Your task to perform on an android device: Search for Mexican restaurants on Maps Image 0: 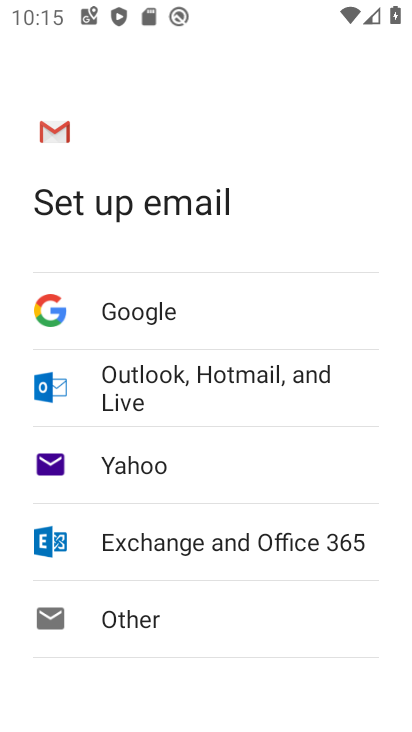
Step 0: press home button
Your task to perform on an android device: Search for Mexican restaurants on Maps Image 1: 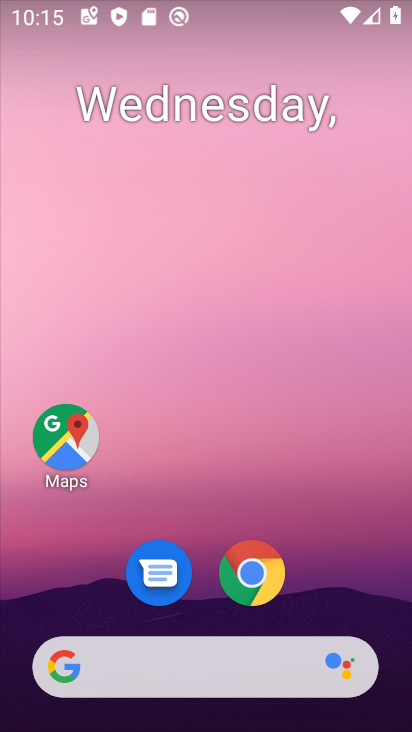
Step 1: drag from (372, 578) to (363, 194)
Your task to perform on an android device: Search for Mexican restaurants on Maps Image 2: 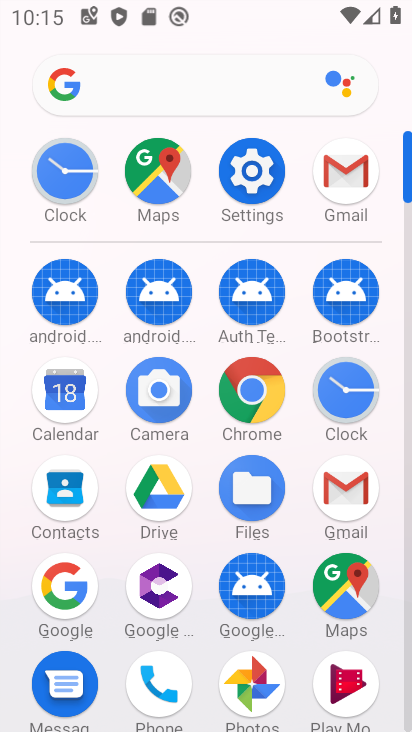
Step 2: click (363, 598)
Your task to perform on an android device: Search for Mexican restaurants on Maps Image 3: 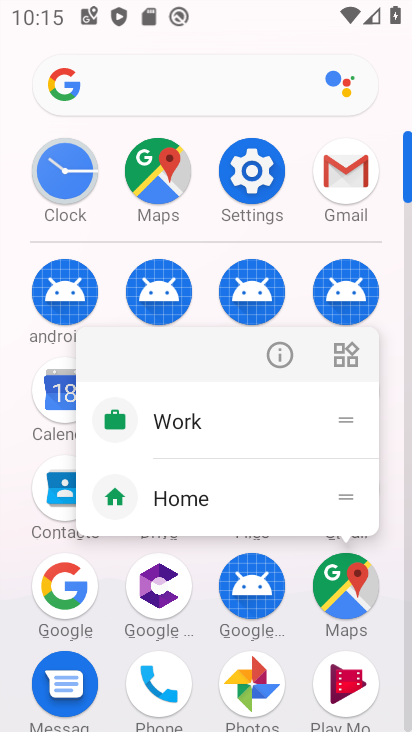
Step 3: click (363, 598)
Your task to perform on an android device: Search for Mexican restaurants on Maps Image 4: 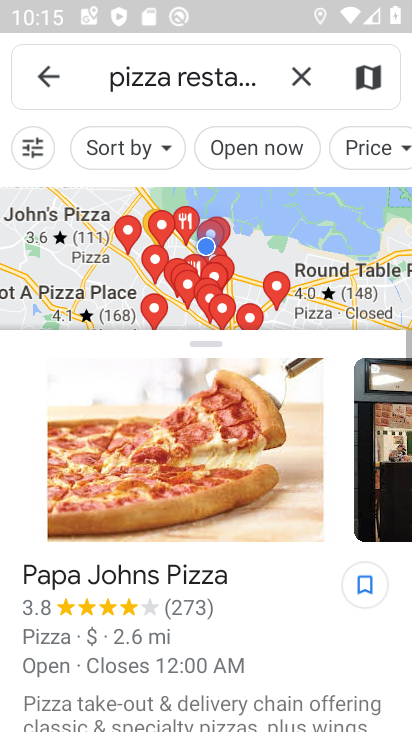
Step 4: click (300, 86)
Your task to perform on an android device: Search for Mexican restaurants on Maps Image 5: 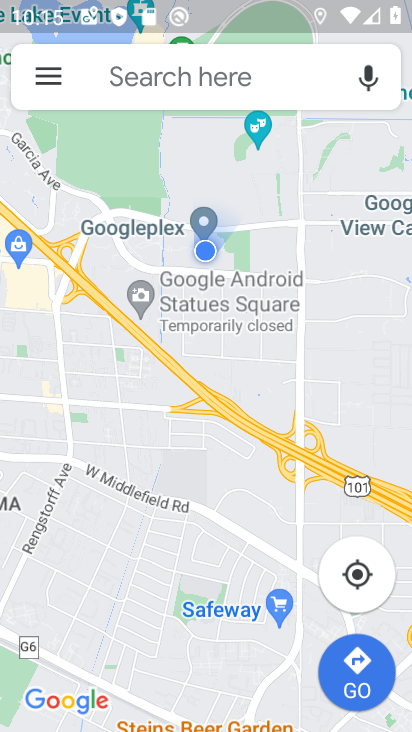
Step 5: click (243, 85)
Your task to perform on an android device: Search for Mexican restaurants on Maps Image 6: 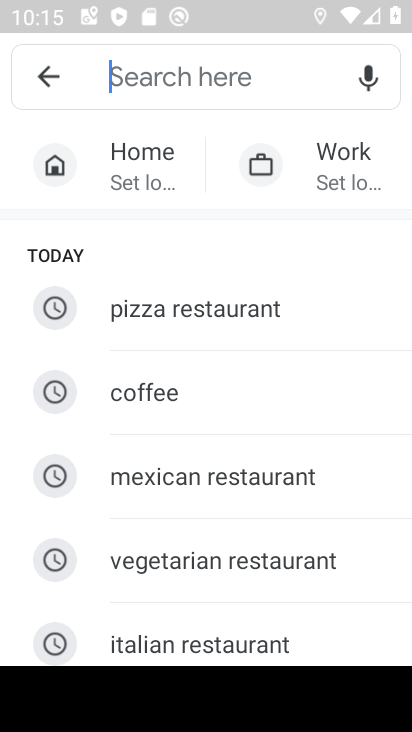
Step 6: type "mexcian restaurants"
Your task to perform on an android device: Search for Mexican restaurants on Maps Image 7: 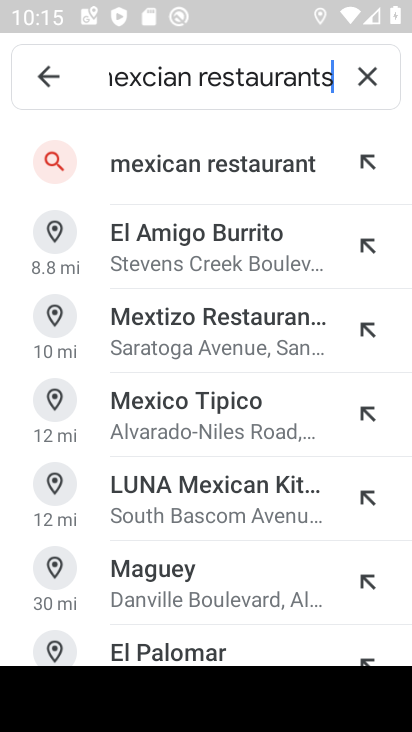
Step 7: click (247, 155)
Your task to perform on an android device: Search for Mexican restaurants on Maps Image 8: 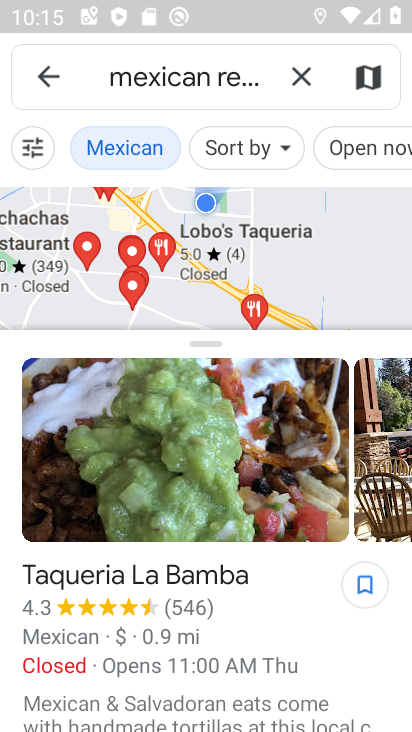
Step 8: task complete